Your task to perform on an android device: Open the phone app and click the voicemail tab. Image 0: 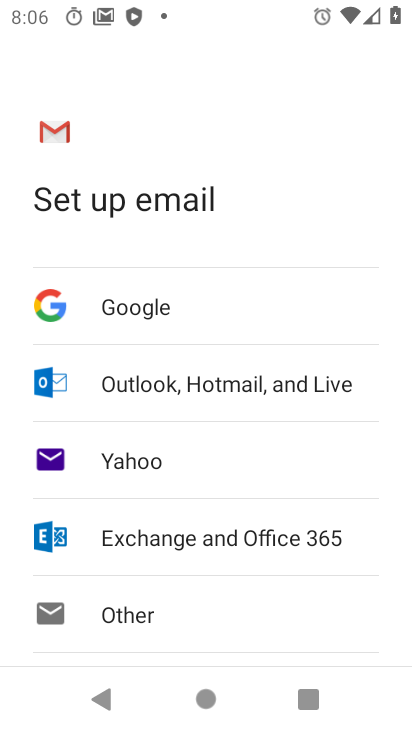
Step 0: press home button
Your task to perform on an android device: Open the phone app and click the voicemail tab. Image 1: 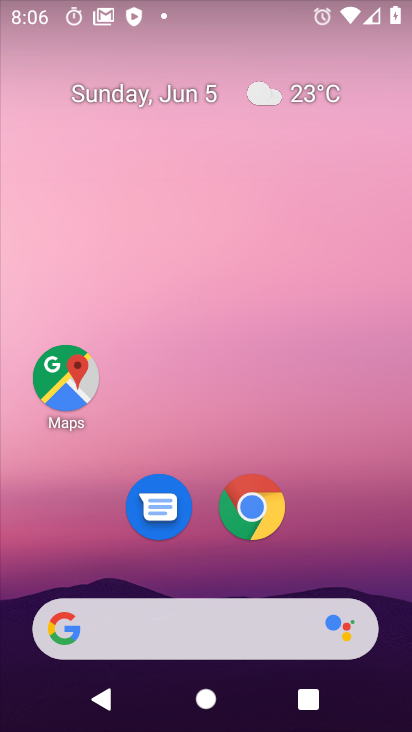
Step 1: drag from (223, 553) to (271, 131)
Your task to perform on an android device: Open the phone app and click the voicemail tab. Image 2: 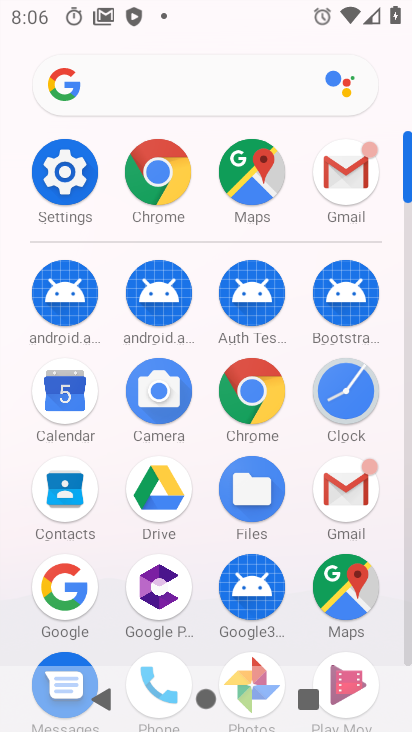
Step 2: click (152, 657)
Your task to perform on an android device: Open the phone app and click the voicemail tab. Image 3: 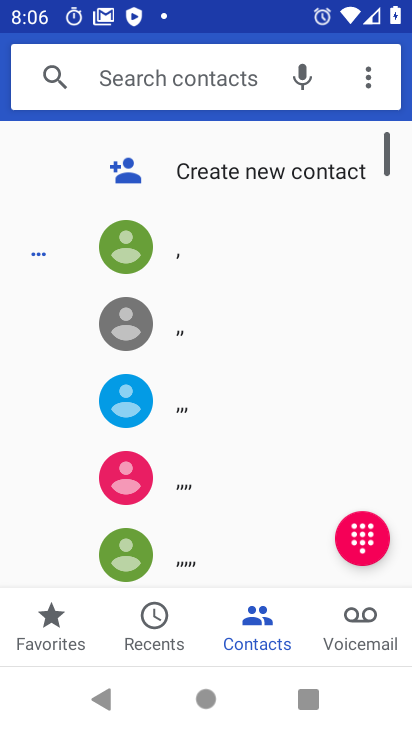
Step 3: click (340, 645)
Your task to perform on an android device: Open the phone app and click the voicemail tab. Image 4: 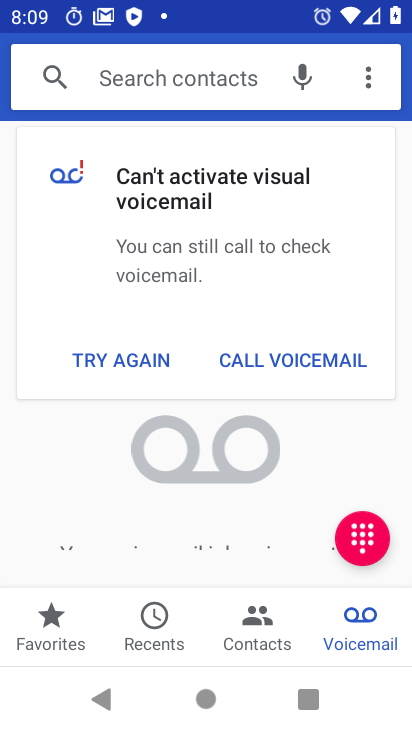
Step 4: task complete